Your task to perform on an android device: Go to sound settings Image 0: 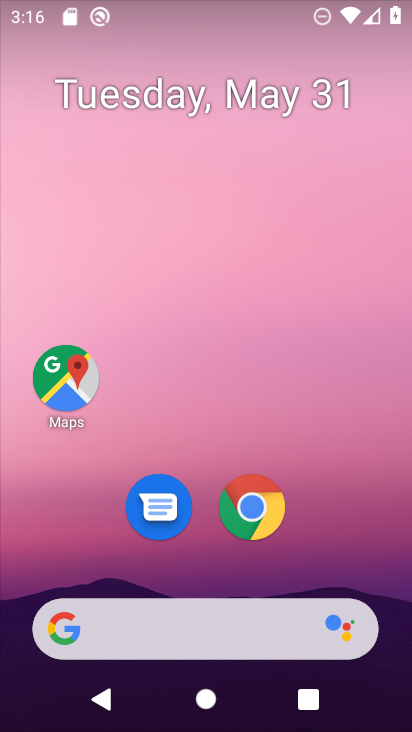
Step 0: drag from (149, 730) to (143, 85)
Your task to perform on an android device: Go to sound settings Image 1: 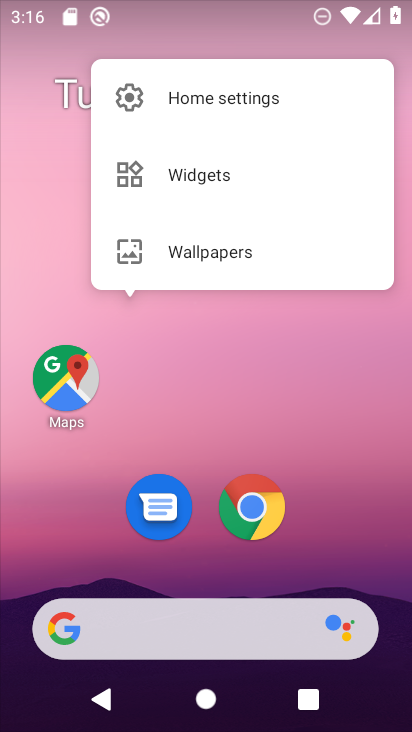
Step 1: press home button
Your task to perform on an android device: Go to sound settings Image 2: 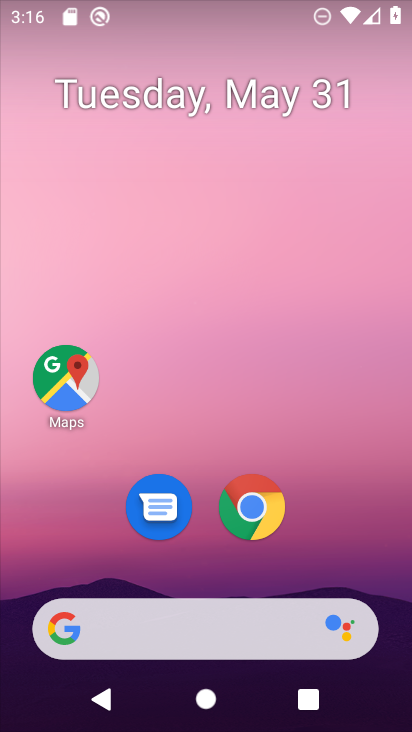
Step 2: drag from (167, 725) to (157, 143)
Your task to perform on an android device: Go to sound settings Image 3: 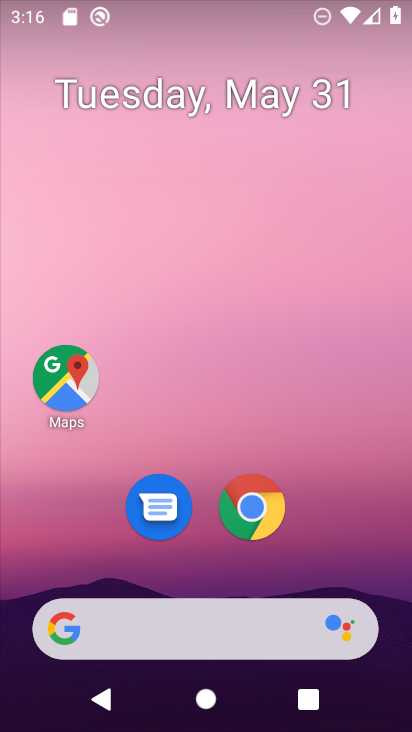
Step 3: drag from (152, 712) to (121, 18)
Your task to perform on an android device: Go to sound settings Image 4: 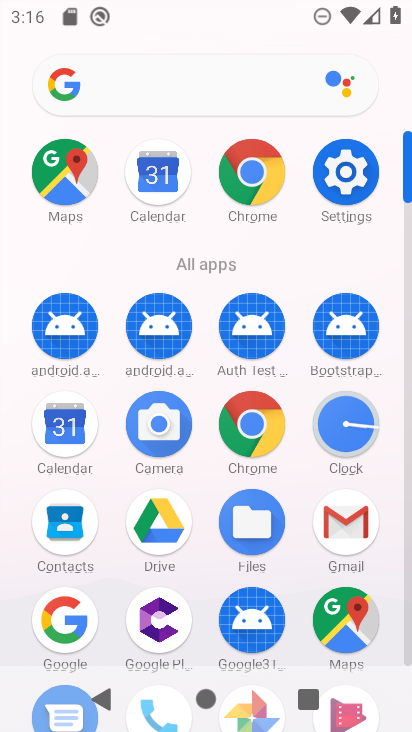
Step 4: click (357, 197)
Your task to perform on an android device: Go to sound settings Image 5: 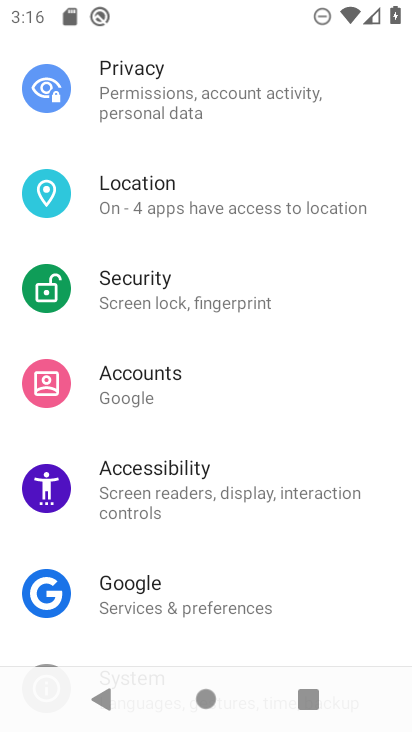
Step 5: drag from (281, 557) to (198, 616)
Your task to perform on an android device: Go to sound settings Image 6: 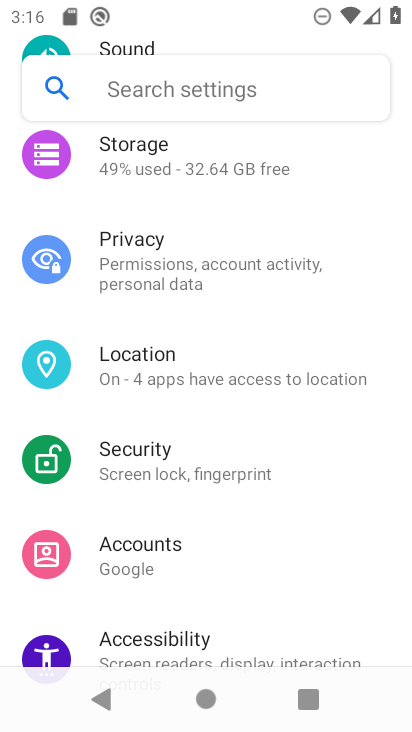
Step 6: drag from (225, 209) to (210, 573)
Your task to perform on an android device: Go to sound settings Image 7: 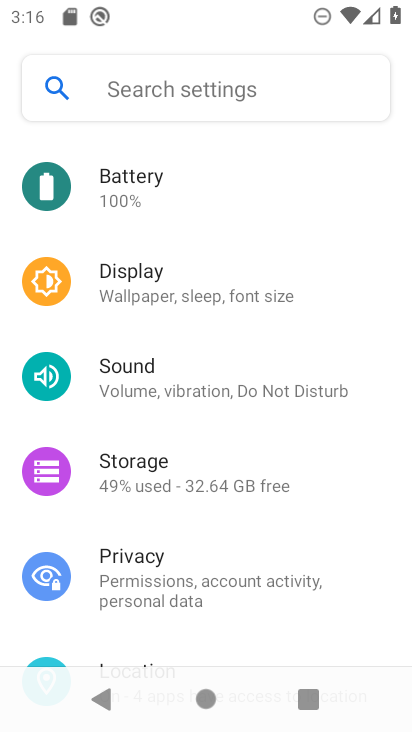
Step 7: click (210, 397)
Your task to perform on an android device: Go to sound settings Image 8: 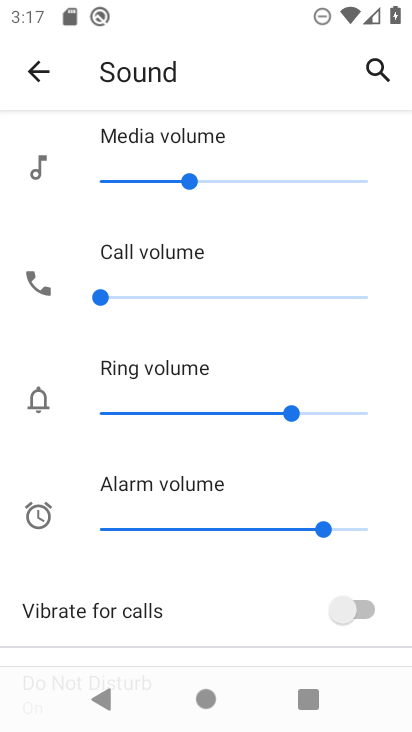
Step 8: task complete